Your task to perform on an android device: Open the calendar app, open the side menu, and click the "Day" option Image 0: 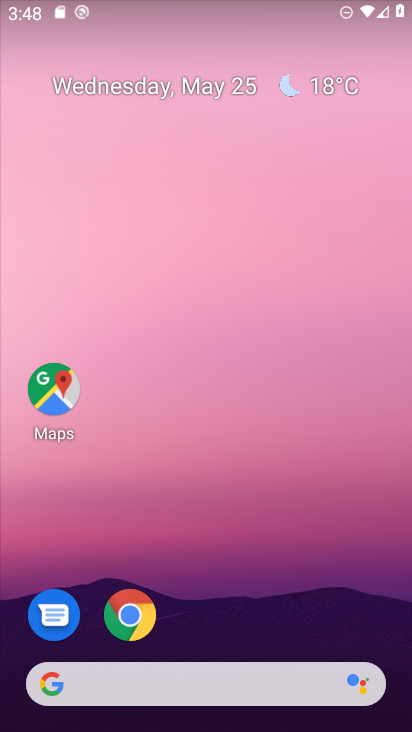
Step 0: drag from (285, 538) to (272, 36)
Your task to perform on an android device: Open the calendar app, open the side menu, and click the "Day" option Image 1: 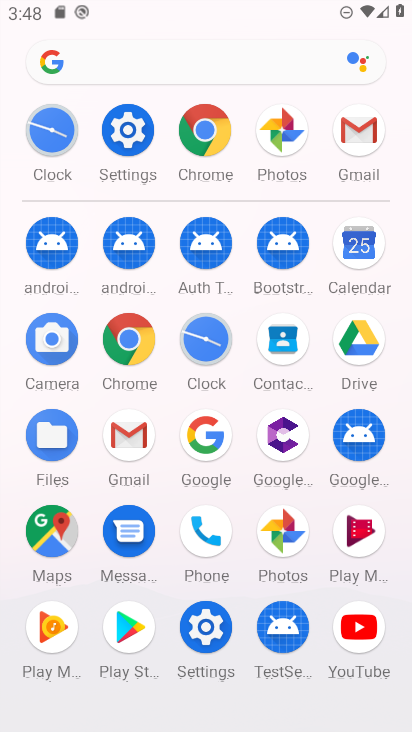
Step 1: click (359, 243)
Your task to perform on an android device: Open the calendar app, open the side menu, and click the "Day" option Image 2: 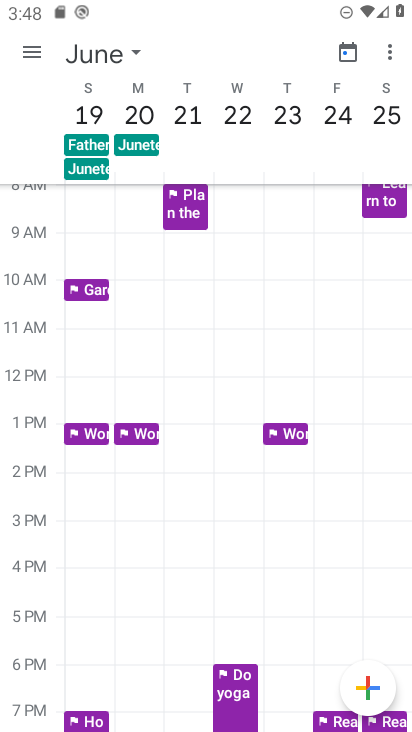
Step 2: click (36, 49)
Your task to perform on an android device: Open the calendar app, open the side menu, and click the "Day" option Image 3: 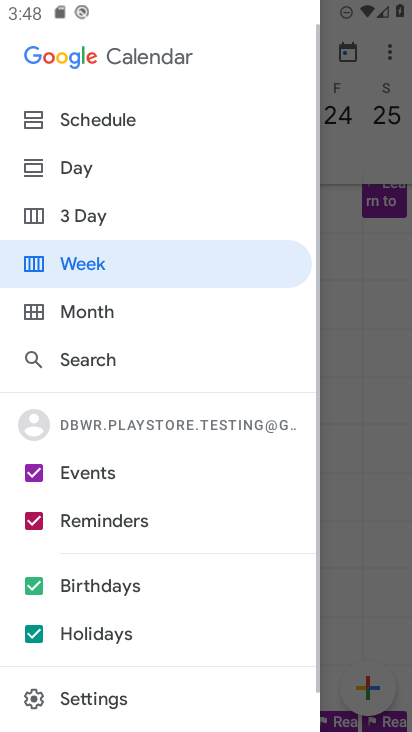
Step 3: click (73, 159)
Your task to perform on an android device: Open the calendar app, open the side menu, and click the "Day" option Image 4: 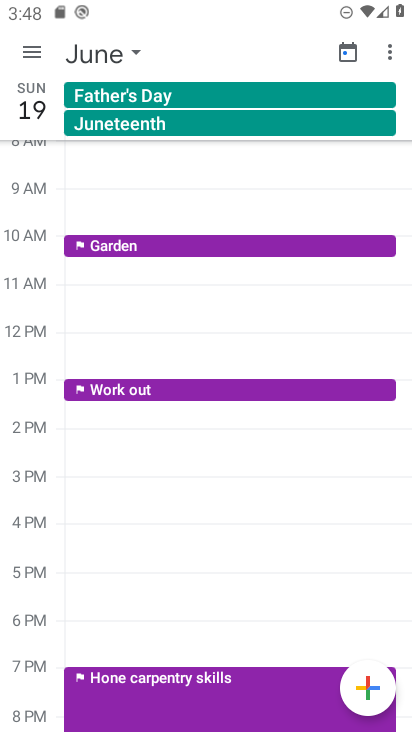
Step 4: task complete